Your task to perform on an android device: search for starred emails in the gmail app Image 0: 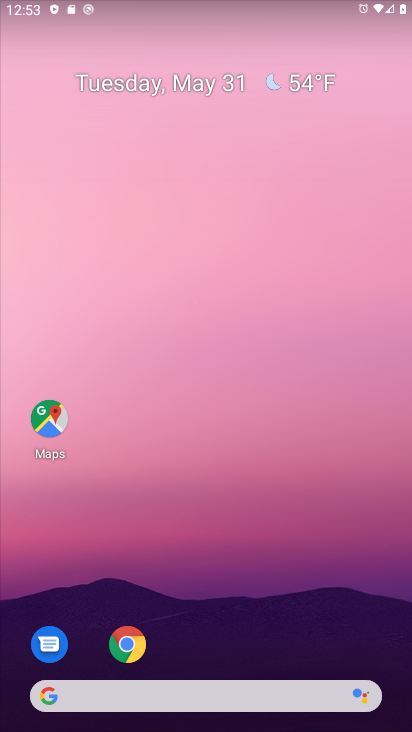
Step 0: press home button
Your task to perform on an android device: search for starred emails in the gmail app Image 1: 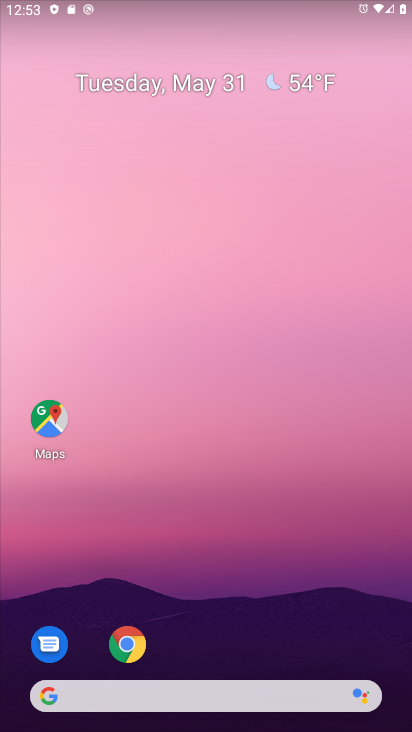
Step 1: drag from (220, 639) to (224, 252)
Your task to perform on an android device: search for starred emails in the gmail app Image 2: 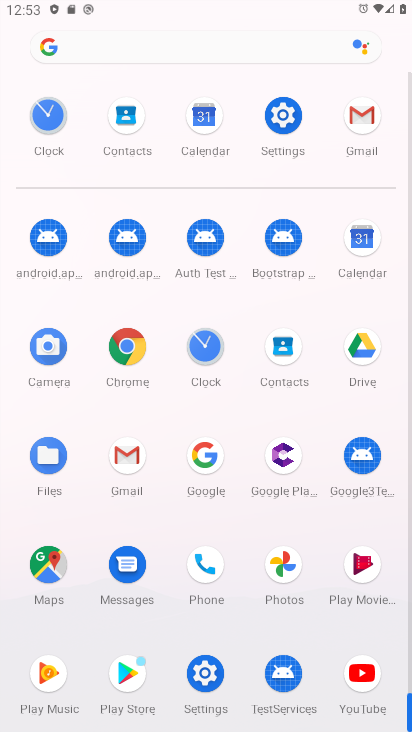
Step 2: click (363, 118)
Your task to perform on an android device: search for starred emails in the gmail app Image 3: 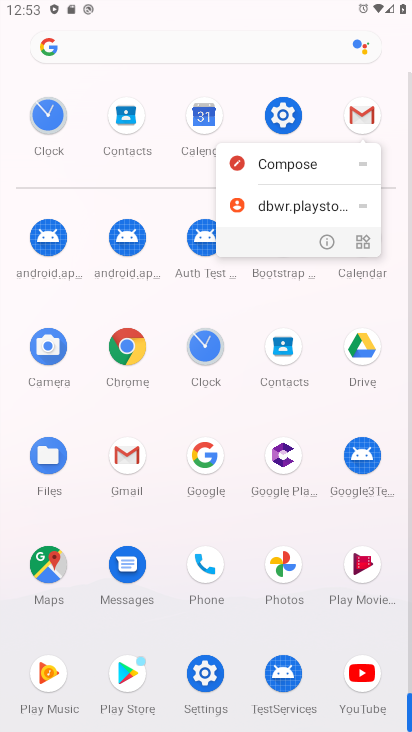
Step 3: click (363, 118)
Your task to perform on an android device: search for starred emails in the gmail app Image 4: 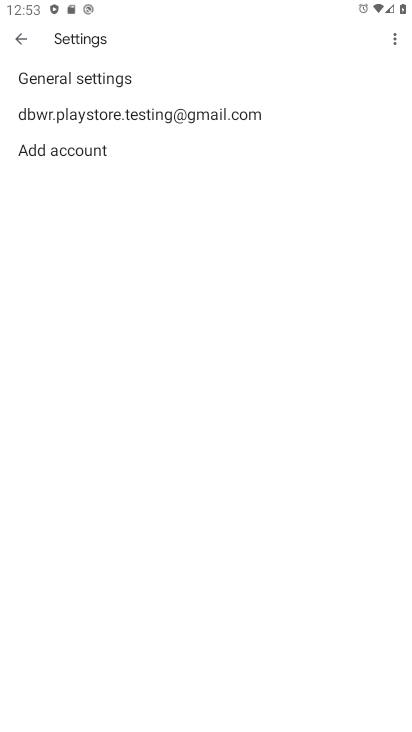
Step 4: click (23, 35)
Your task to perform on an android device: search for starred emails in the gmail app Image 5: 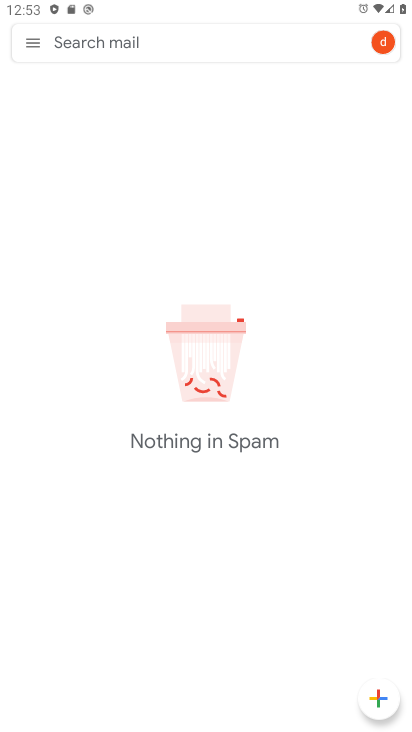
Step 5: click (31, 40)
Your task to perform on an android device: search for starred emails in the gmail app Image 6: 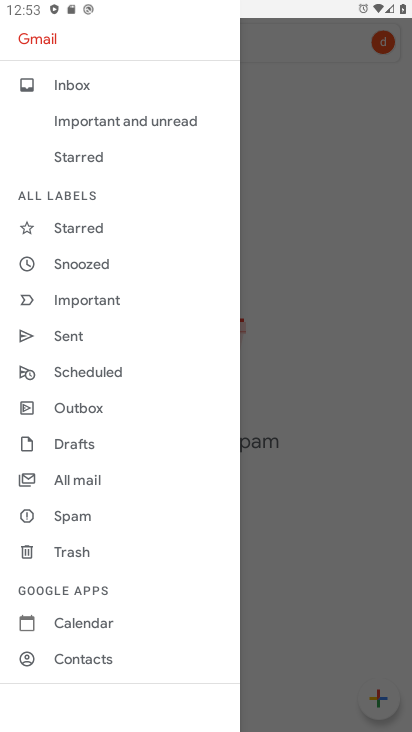
Step 6: click (81, 162)
Your task to perform on an android device: search for starred emails in the gmail app Image 7: 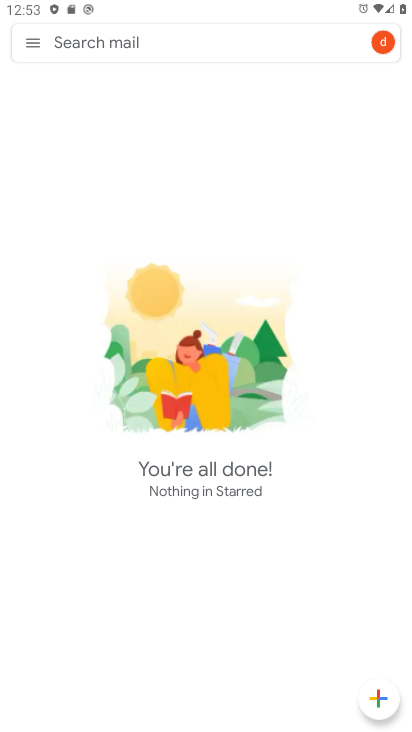
Step 7: task complete